Your task to perform on an android device: Go to location settings Image 0: 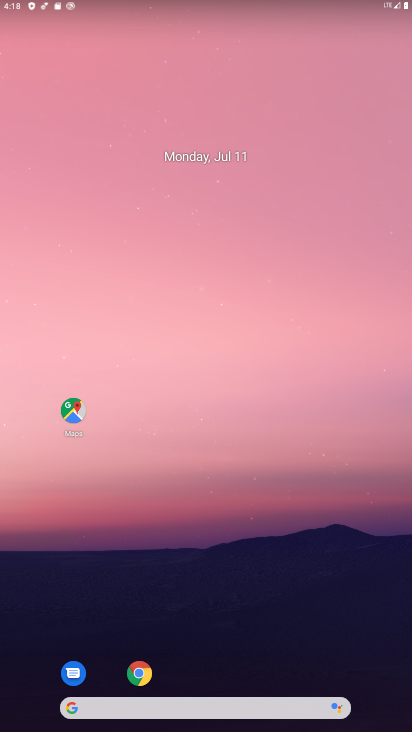
Step 0: drag from (329, 604) to (283, 71)
Your task to perform on an android device: Go to location settings Image 1: 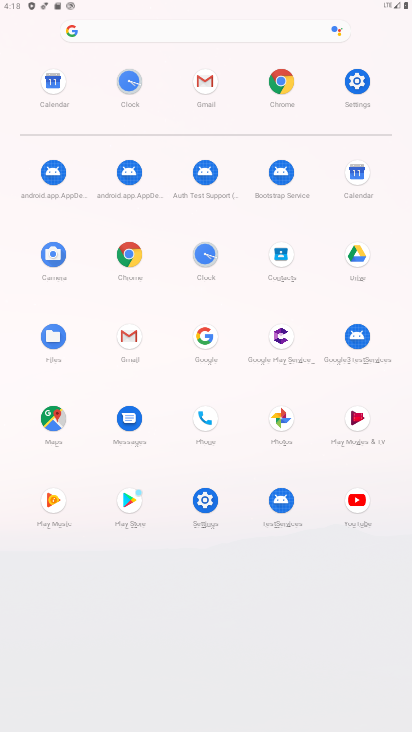
Step 1: click (362, 79)
Your task to perform on an android device: Go to location settings Image 2: 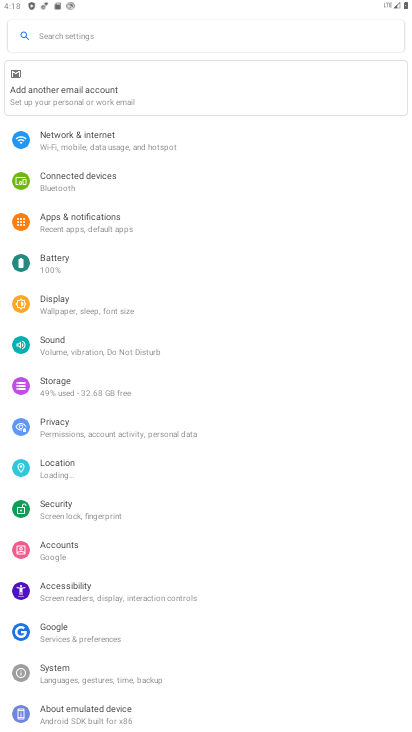
Step 2: click (77, 461)
Your task to perform on an android device: Go to location settings Image 3: 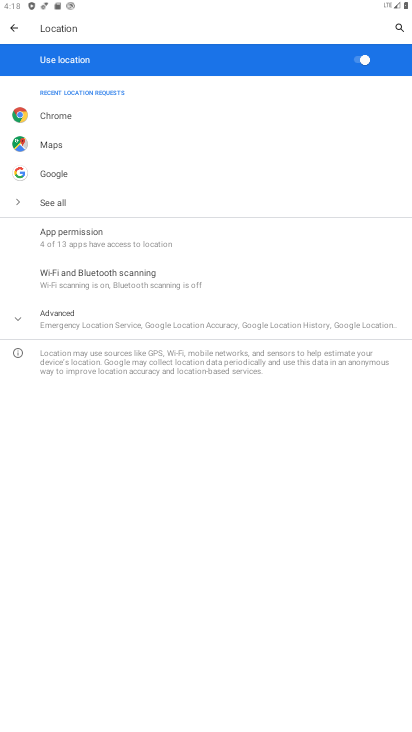
Step 3: task complete